Your task to perform on an android device: Go to Reddit.com Image 0: 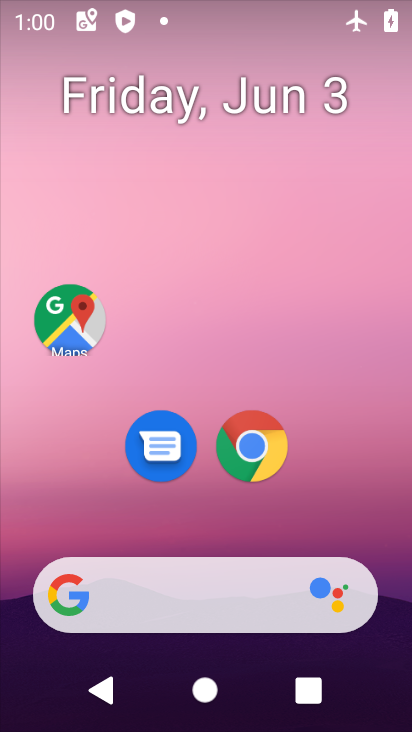
Step 0: click (273, 592)
Your task to perform on an android device: Go to Reddit.com Image 1: 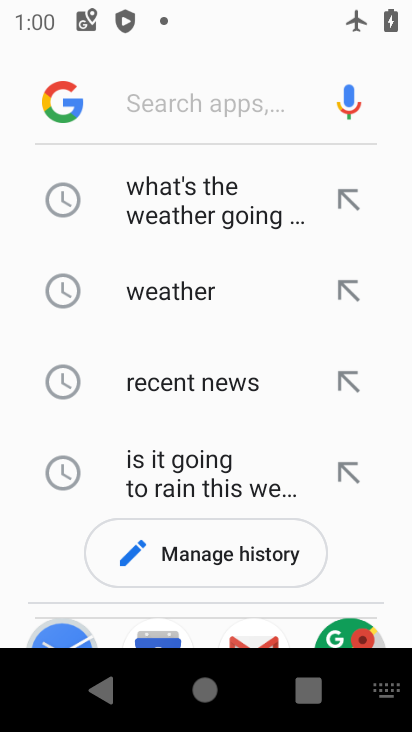
Step 1: type "reddit.com"
Your task to perform on an android device: Go to Reddit.com Image 2: 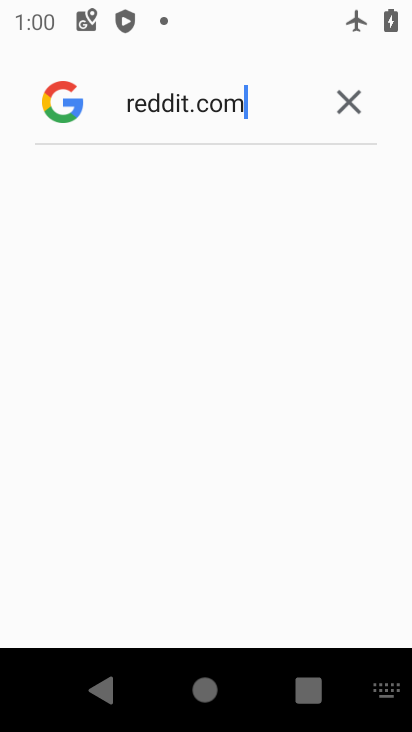
Step 2: task complete